Your task to perform on an android device: Open the map Image 0: 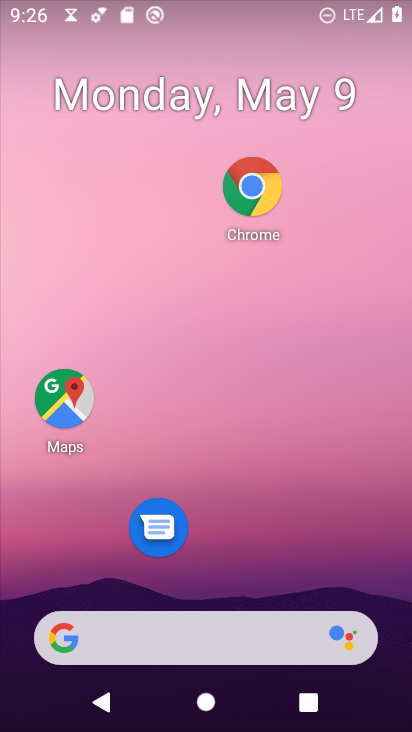
Step 0: click (60, 398)
Your task to perform on an android device: Open the map Image 1: 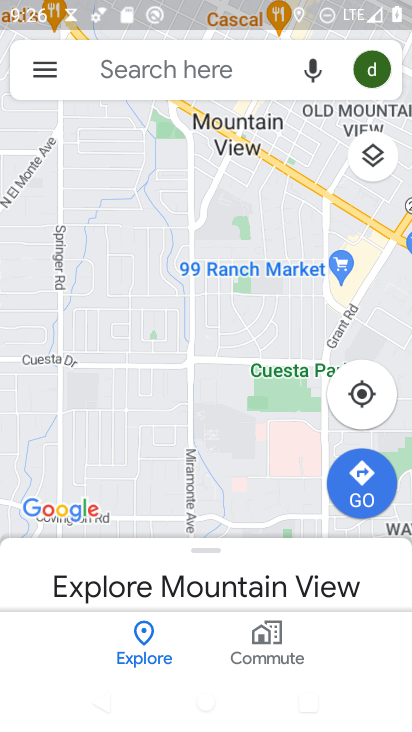
Step 1: task complete